Your task to perform on an android device: open app "Etsy: Buy & Sell Unique Items" Image 0: 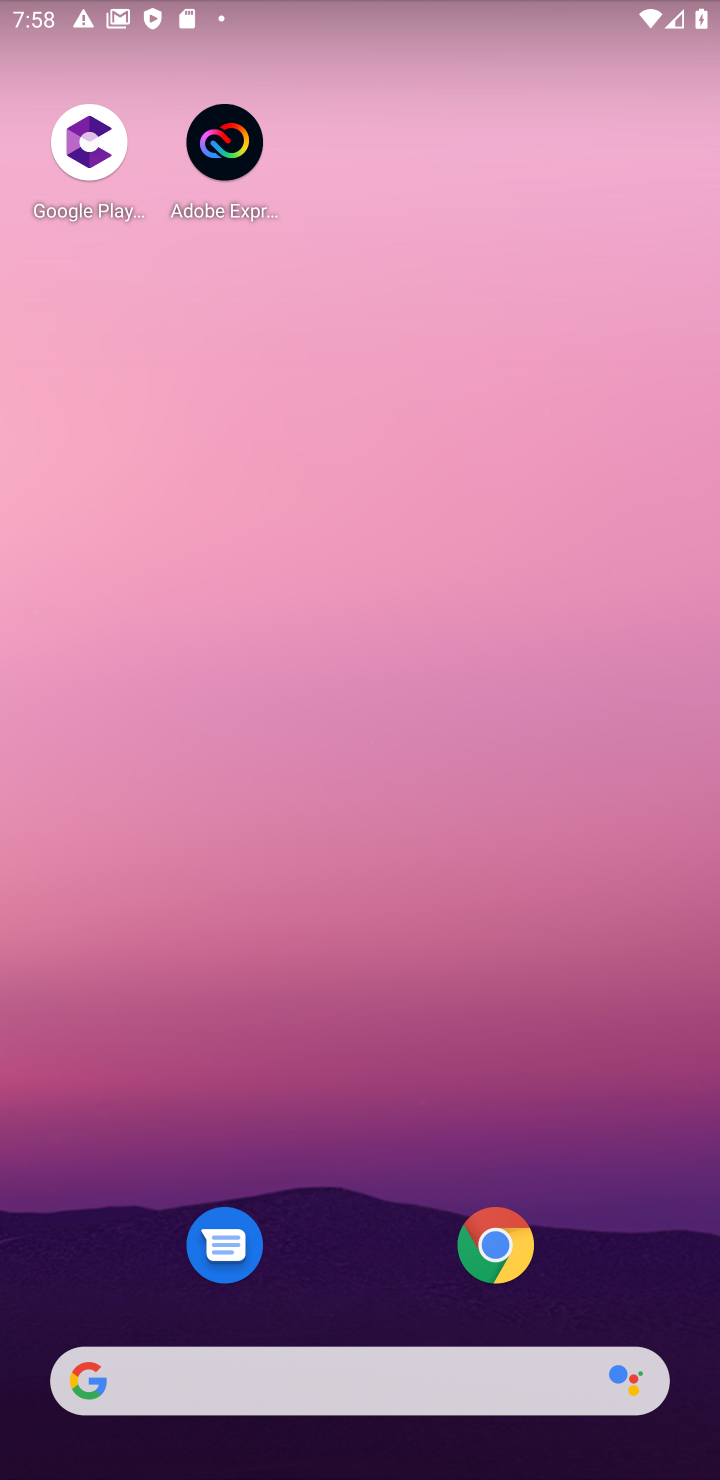
Step 0: drag from (368, 1334) to (347, 197)
Your task to perform on an android device: open app "Etsy: Buy & Sell Unique Items" Image 1: 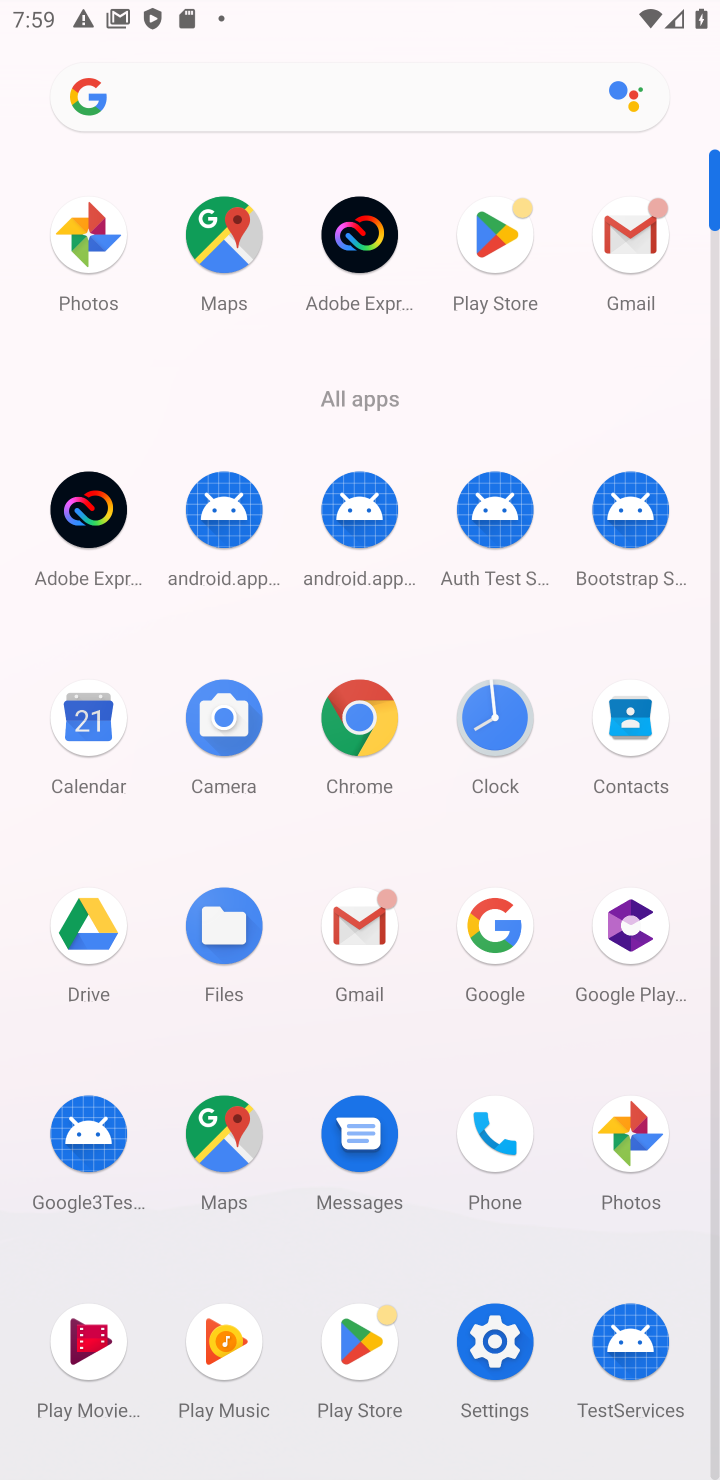
Step 1: click (376, 1342)
Your task to perform on an android device: open app "Etsy: Buy & Sell Unique Items" Image 2: 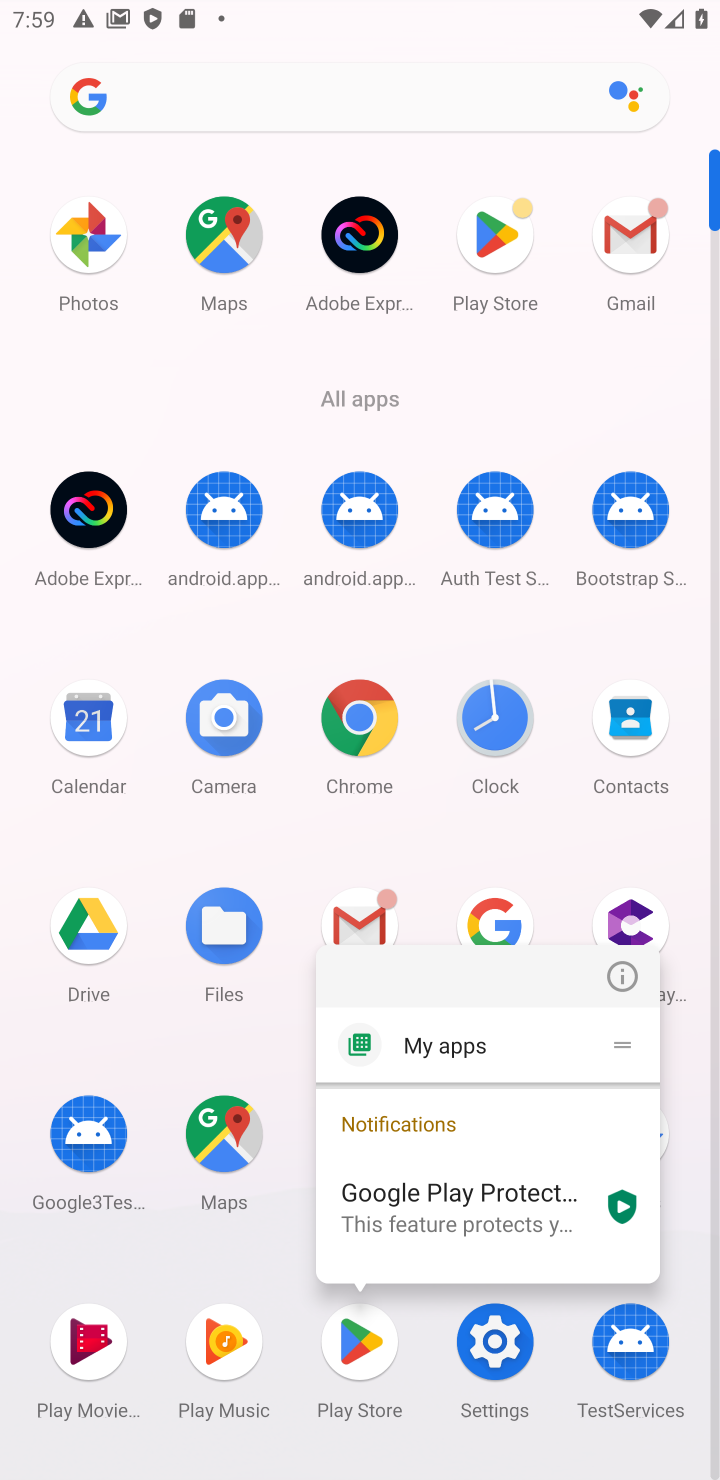
Step 2: click (379, 1382)
Your task to perform on an android device: open app "Etsy: Buy & Sell Unique Items" Image 3: 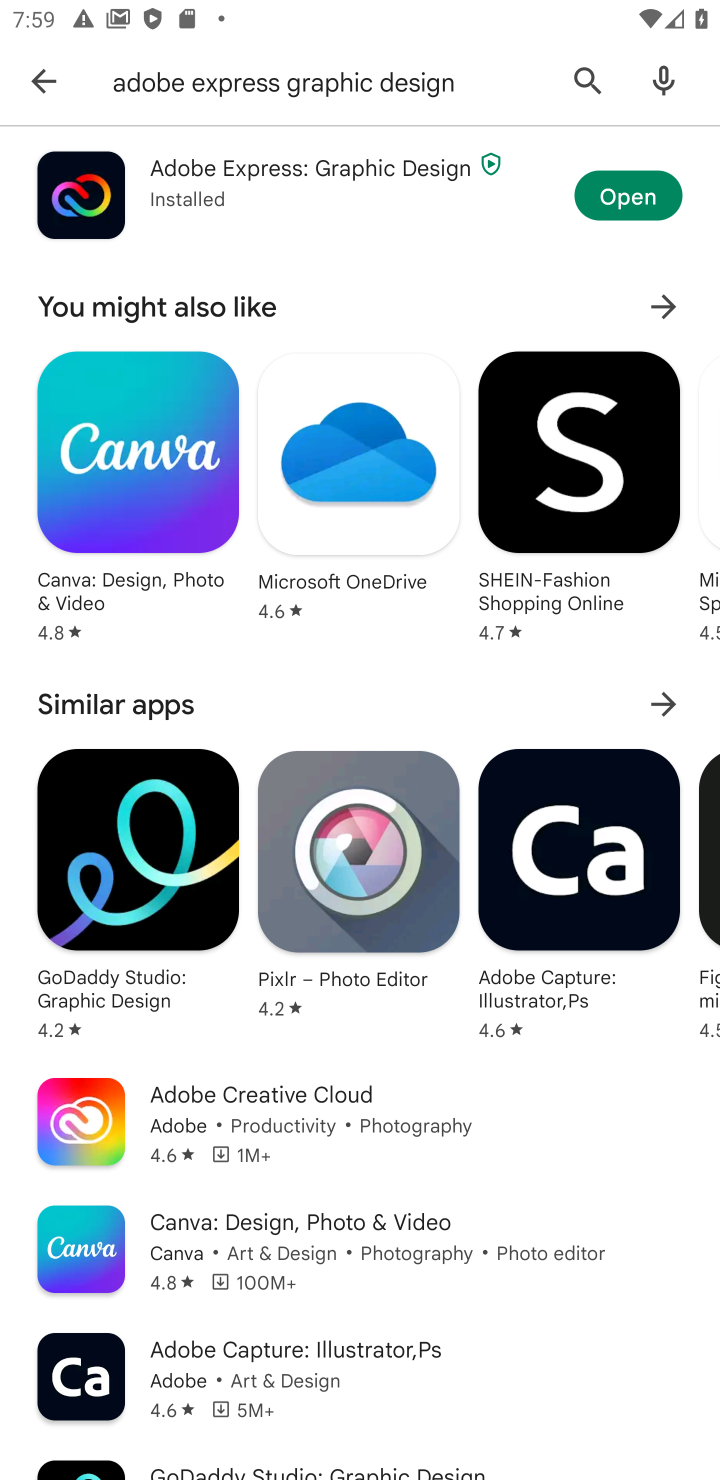
Step 3: click (39, 85)
Your task to perform on an android device: open app "Etsy: Buy & Sell Unique Items" Image 4: 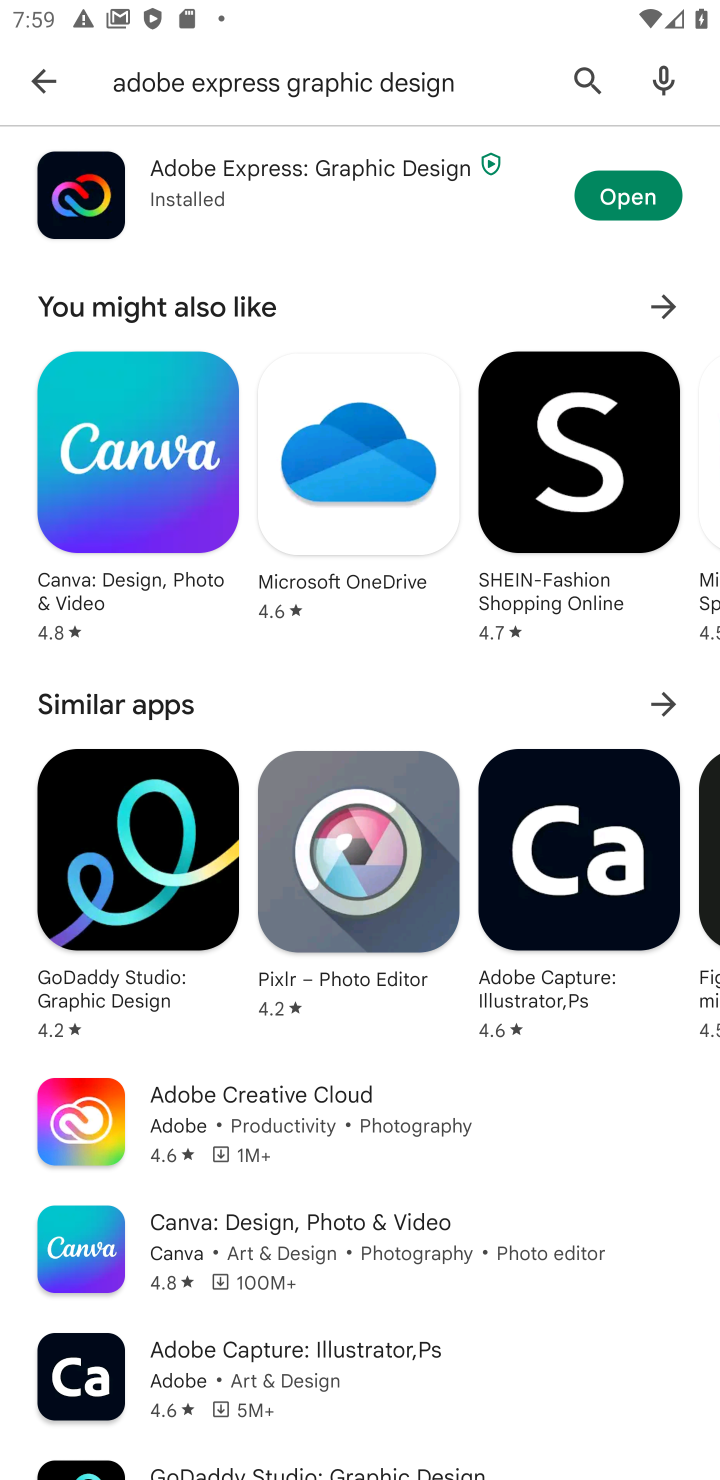
Step 4: click (57, 92)
Your task to perform on an android device: open app "Etsy: Buy & Sell Unique Items" Image 5: 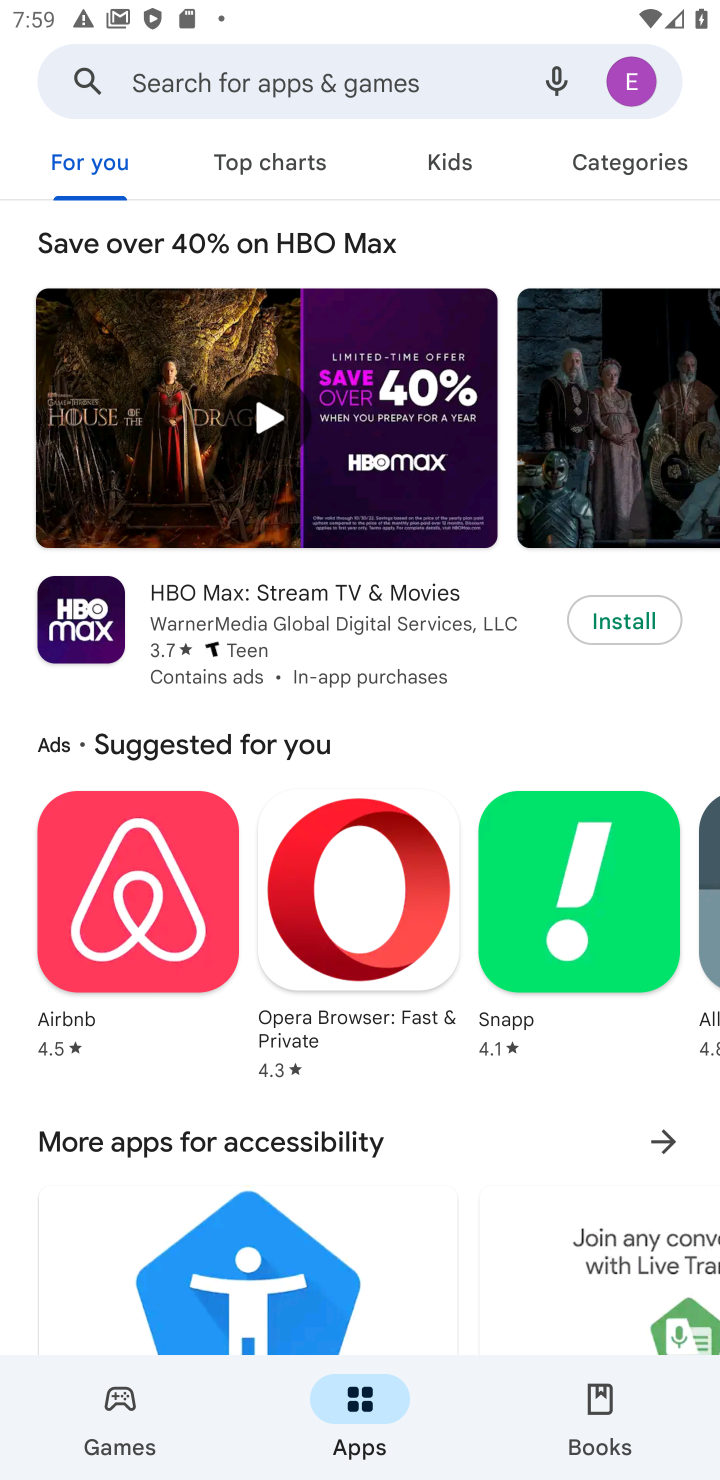
Step 5: click (155, 84)
Your task to perform on an android device: open app "Etsy: Buy & Sell Unique Items" Image 6: 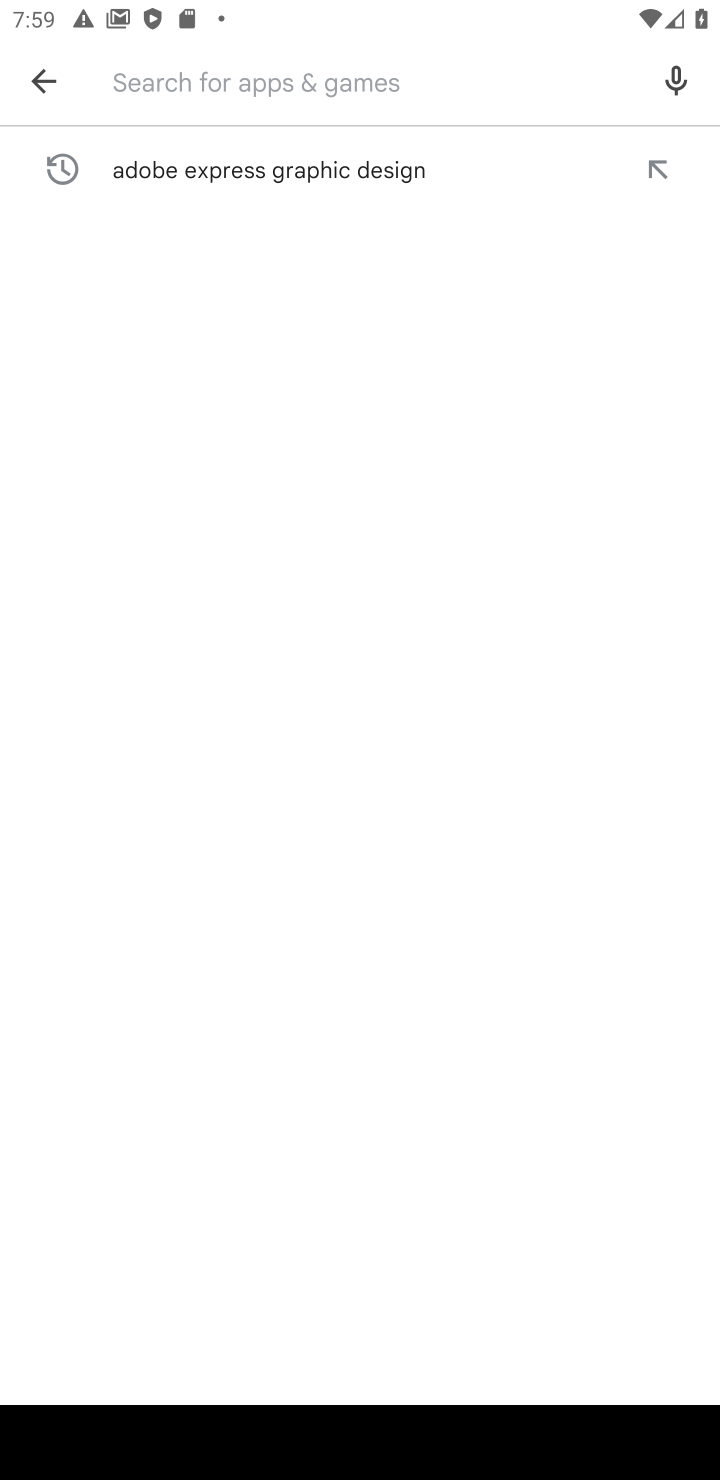
Step 6: type "Etsy: Buy & Sell Unique Items"
Your task to perform on an android device: open app "Etsy: Buy & Sell Unique Items" Image 7: 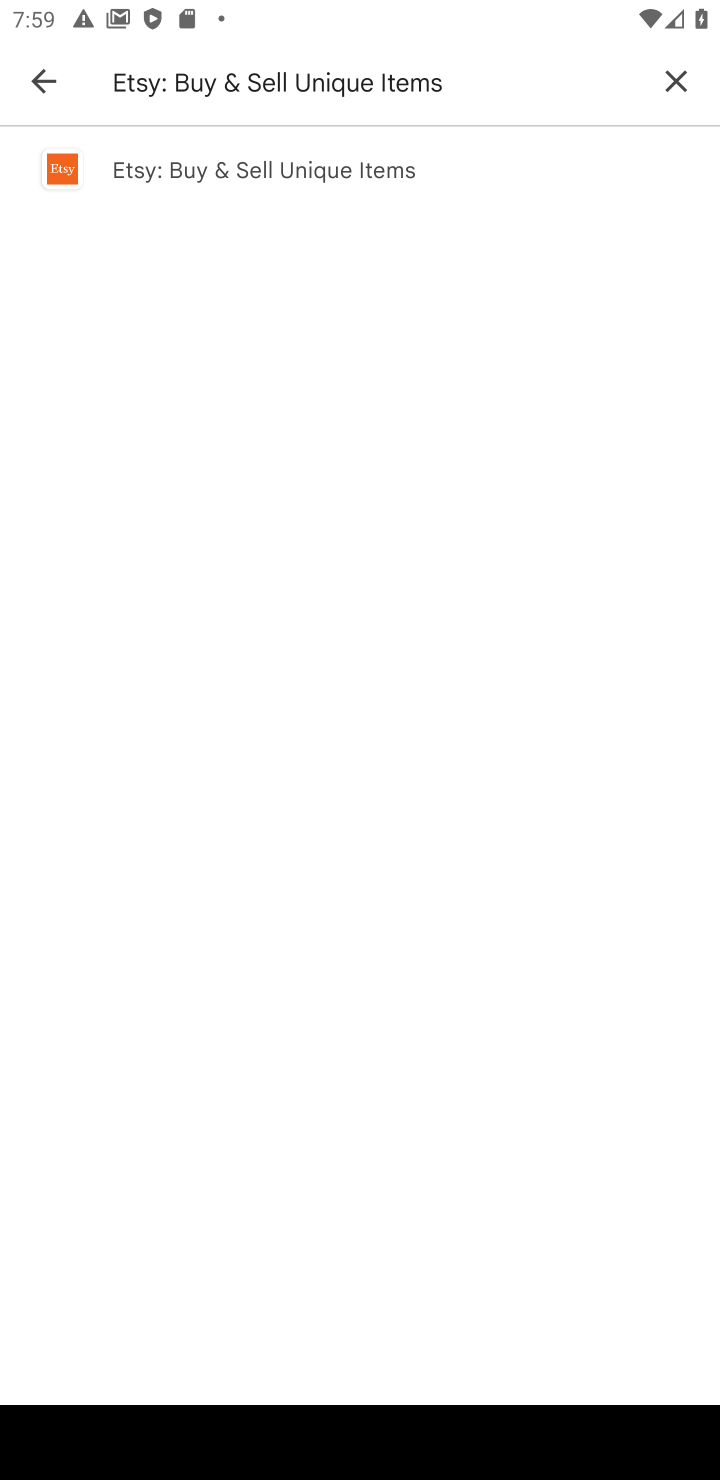
Step 7: click (99, 184)
Your task to perform on an android device: open app "Etsy: Buy & Sell Unique Items" Image 8: 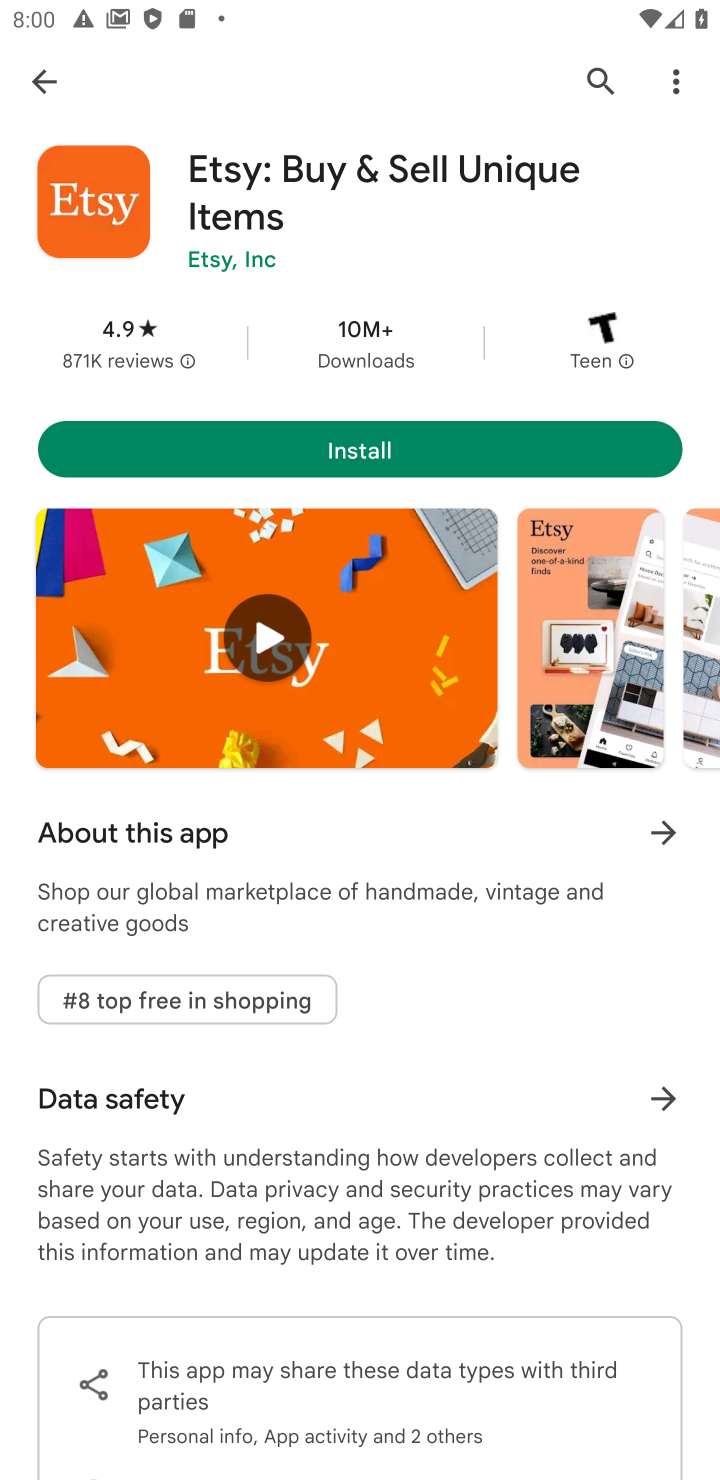
Step 8: task complete